Your task to perform on an android device: turn on bluetooth scan Image 0: 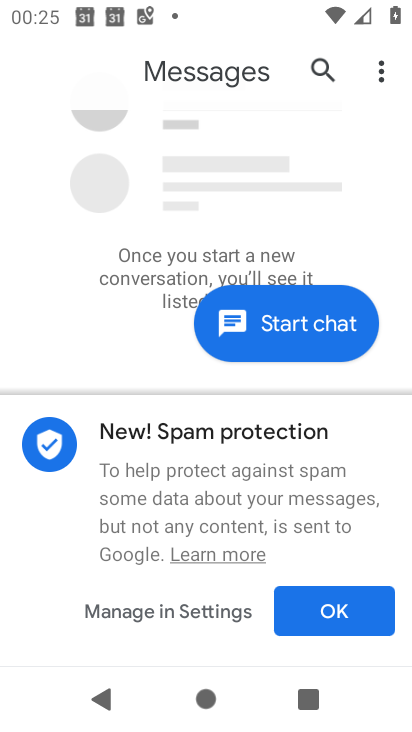
Step 0: press home button
Your task to perform on an android device: turn on bluetooth scan Image 1: 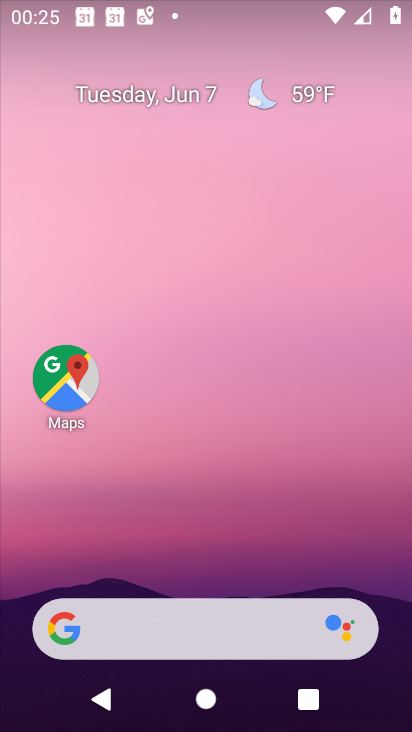
Step 1: drag from (186, 431) to (182, 172)
Your task to perform on an android device: turn on bluetooth scan Image 2: 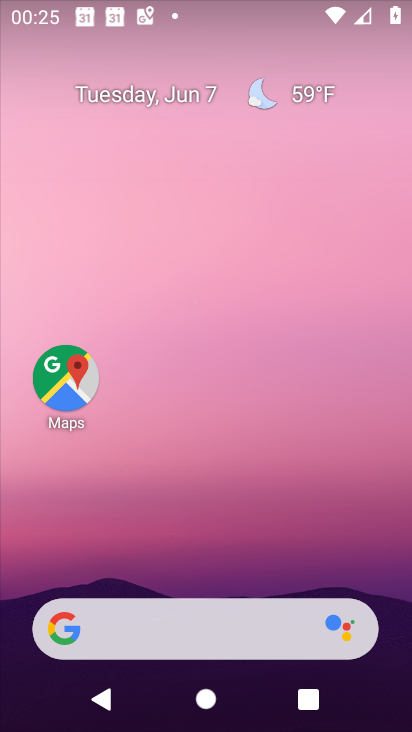
Step 2: drag from (246, 431) to (210, 231)
Your task to perform on an android device: turn on bluetooth scan Image 3: 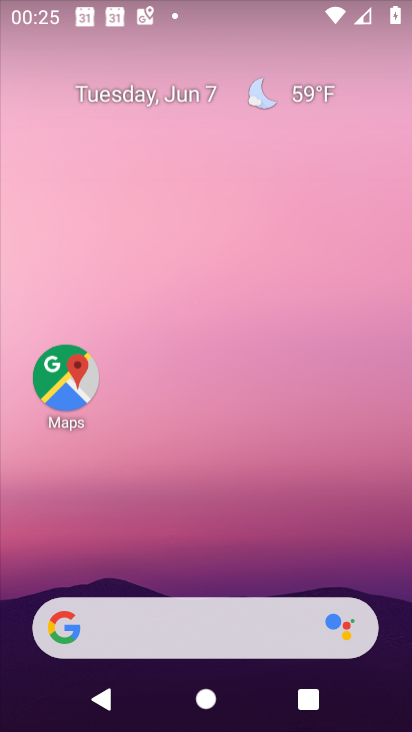
Step 3: click (214, 515)
Your task to perform on an android device: turn on bluetooth scan Image 4: 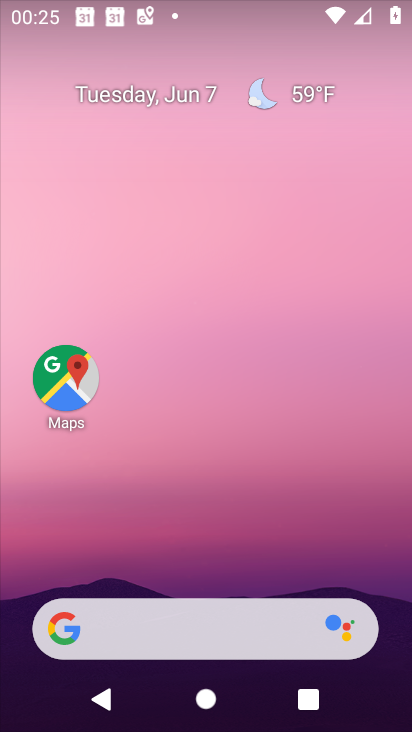
Step 4: drag from (222, 173) to (214, 82)
Your task to perform on an android device: turn on bluetooth scan Image 5: 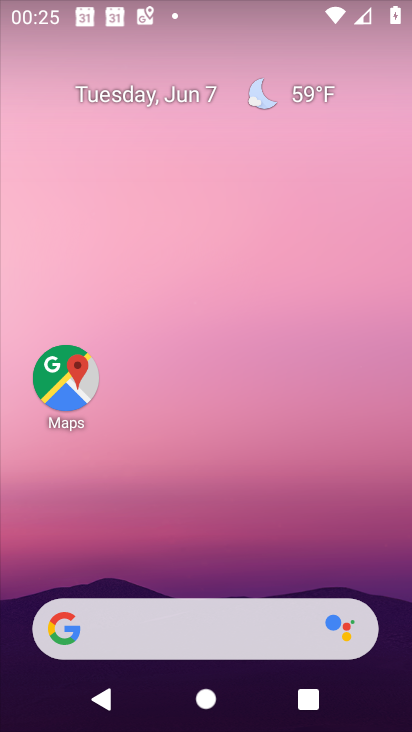
Step 5: drag from (206, 578) to (230, 116)
Your task to perform on an android device: turn on bluetooth scan Image 6: 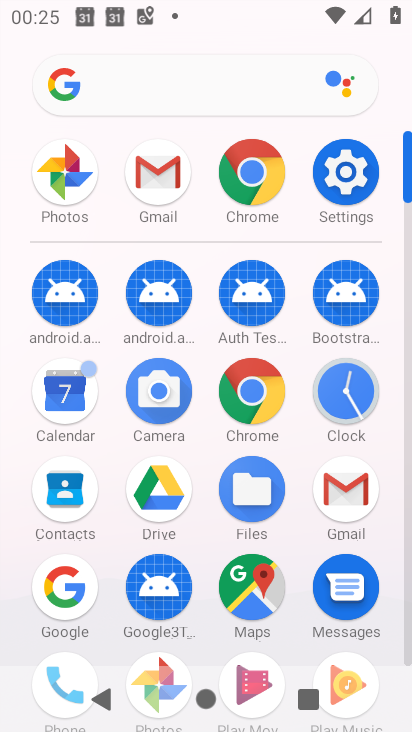
Step 6: click (347, 175)
Your task to perform on an android device: turn on bluetooth scan Image 7: 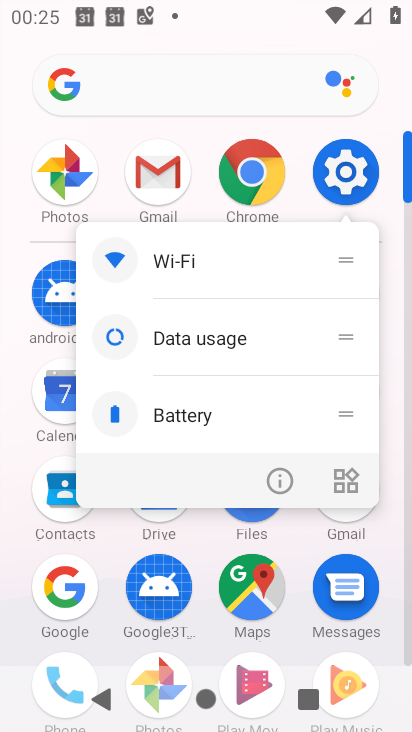
Step 7: click (345, 185)
Your task to perform on an android device: turn on bluetooth scan Image 8: 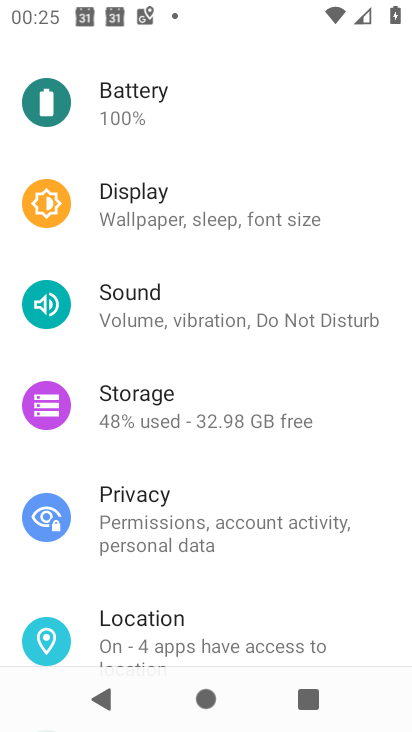
Step 8: click (181, 620)
Your task to perform on an android device: turn on bluetooth scan Image 9: 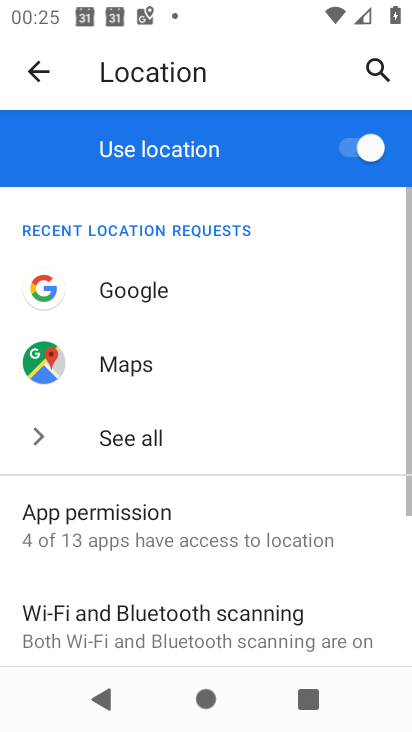
Step 9: click (204, 618)
Your task to perform on an android device: turn on bluetooth scan Image 10: 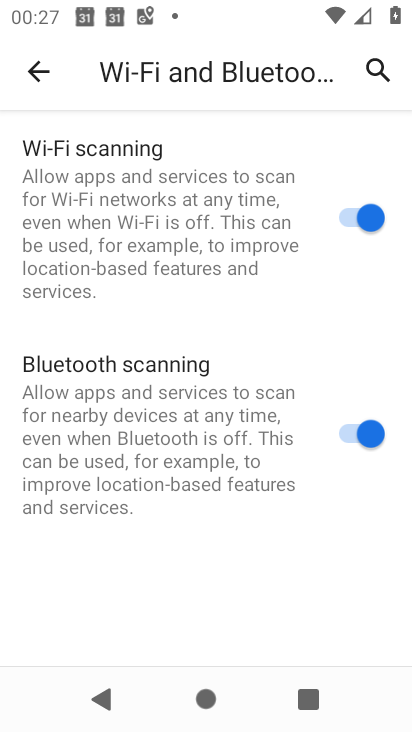
Step 10: task complete